Your task to perform on an android device: Is it going to rain this weekend? Image 0: 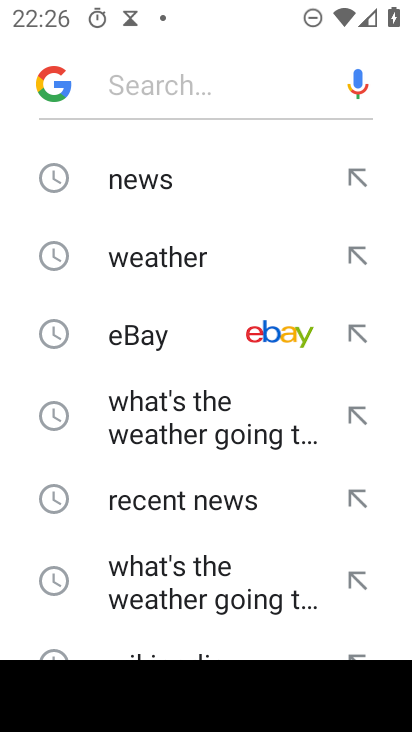
Step 0: press home button
Your task to perform on an android device: Is it going to rain this weekend? Image 1: 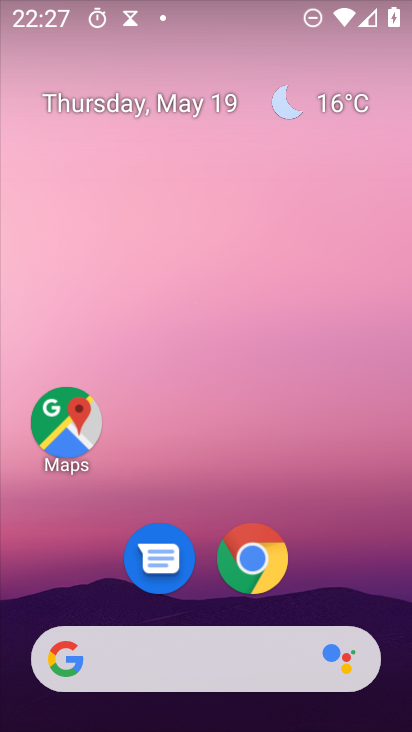
Step 1: click (282, 100)
Your task to perform on an android device: Is it going to rain this weekend? Image 2: 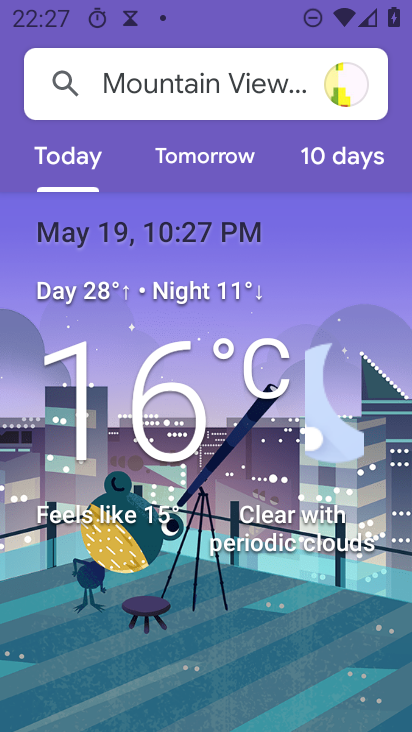
Step 2: click (364, 149)
Your task to perform on an android device: Is it going to rain this weekend? Image 3: 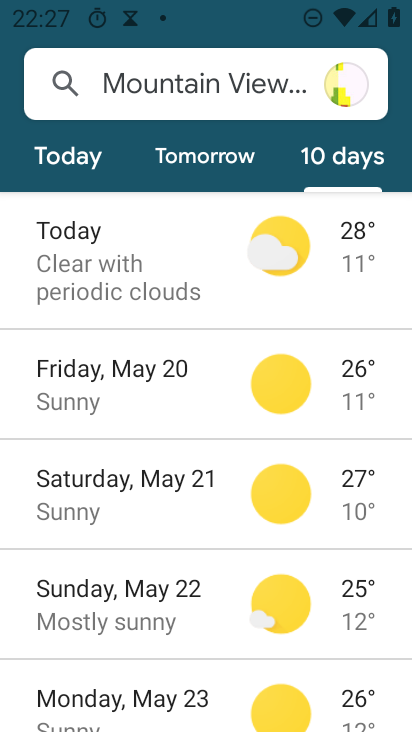
Step 3: click (105, 500)
Your task to perform on an android device: Is it going to rain this weekend? Image 4: 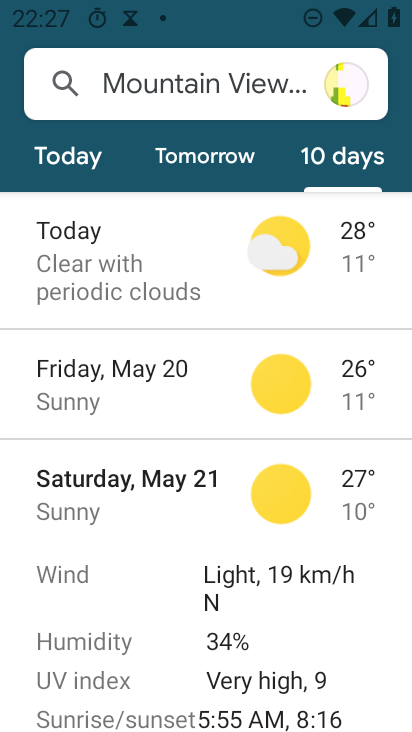
Step 4: task complete